Your task to perform on an android device: Show me recent news Image 0: 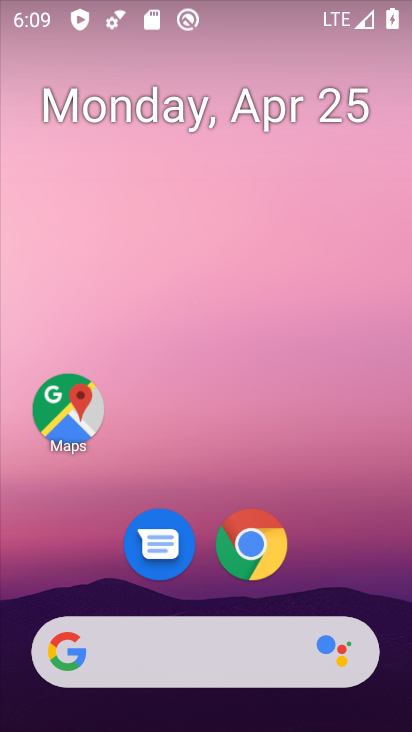
Step 0: drag from (350, 559) to (350, 91)
Your task to perform on an android device: Show me recent news Image 1: 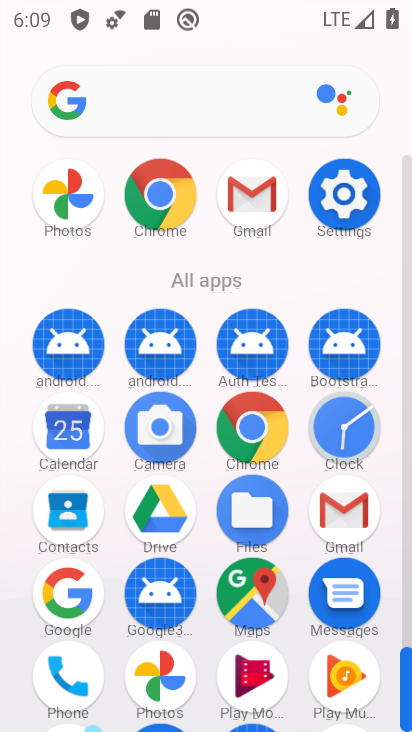
Step 1: click (154, 197)
Your task to perform on an android device: Show me recent news Image 2: 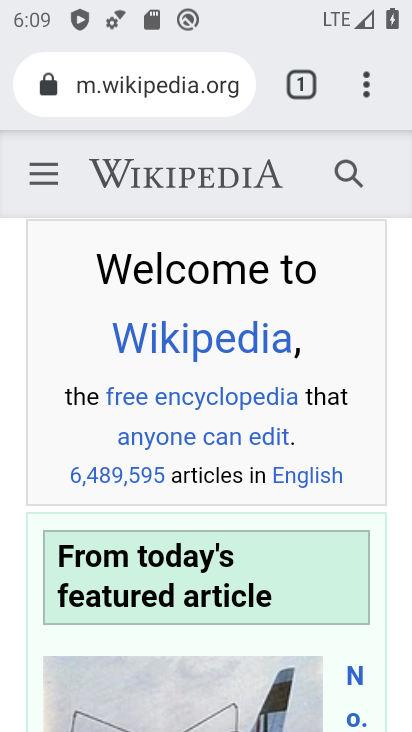
Step 2: click (138, 81)
Your task to perform on an android device: Show me recent news Image 3: 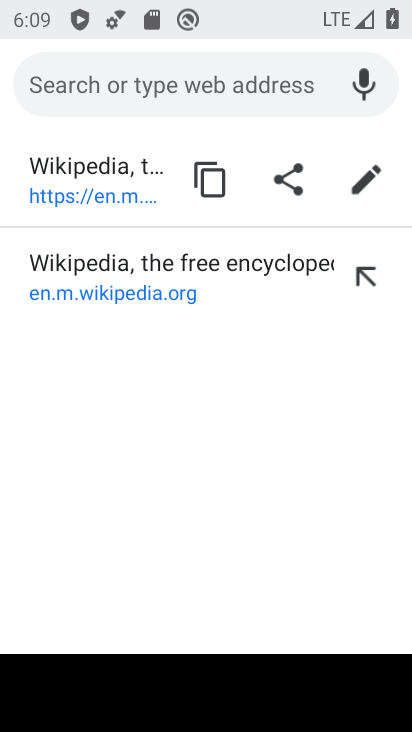
Step 3: click (138, 81)
Your task to perform on an android device: Show me recent news Image 4: 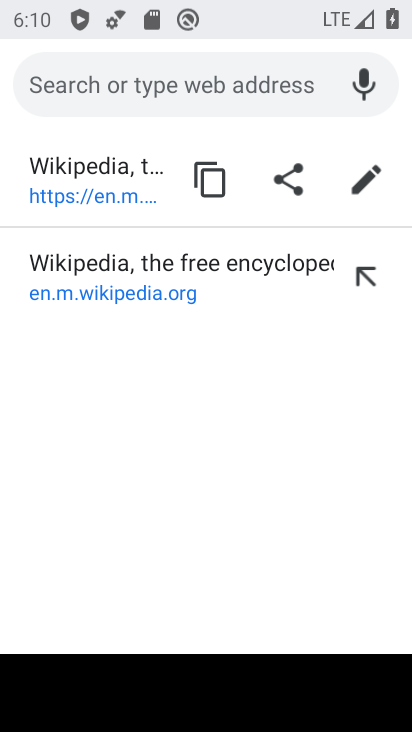
Step 4: type "Show me recent news"
Your task to perform on an android device: Show me recent news Image 5: 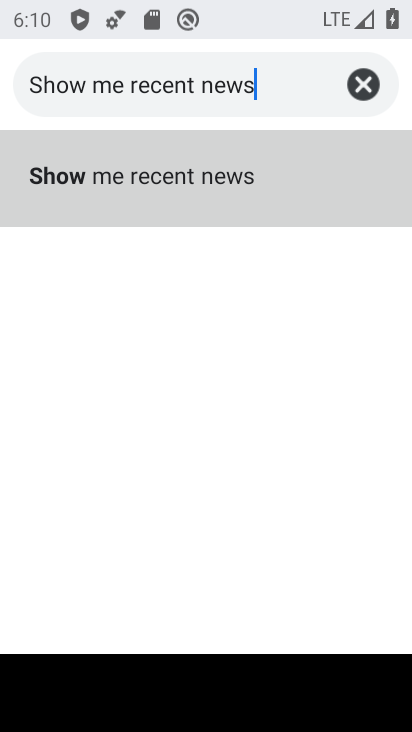
Step 5: click (143, 177)
Your task to perform on an android device: Show me recent news Image 6: 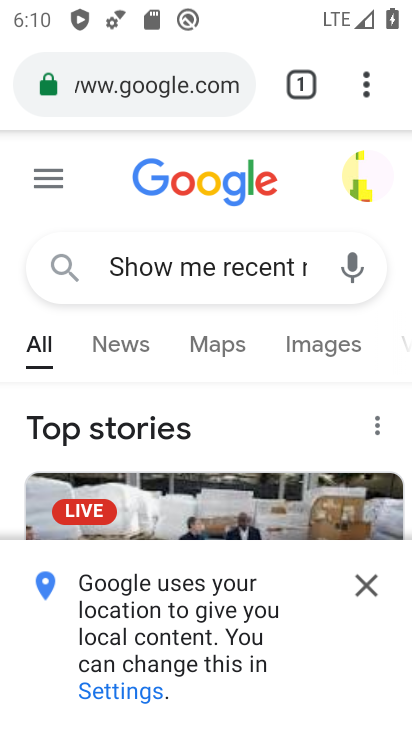
Step 6: click (376, 580)
Your task to perform on an android device: Show me recent news Image 7: 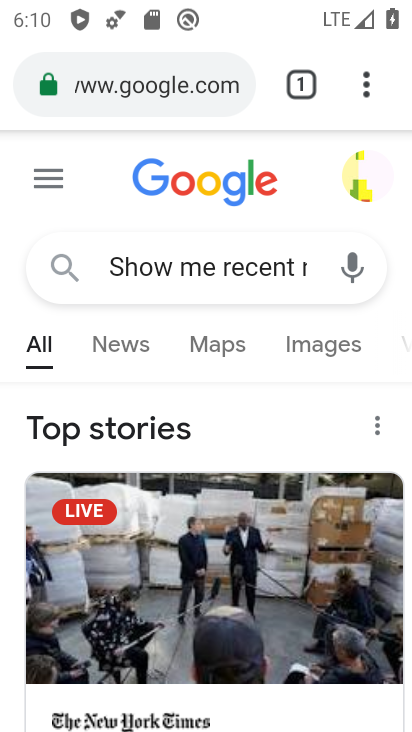
Step 7: task complete